Your task to perform on an android device: turn off location Image 0: 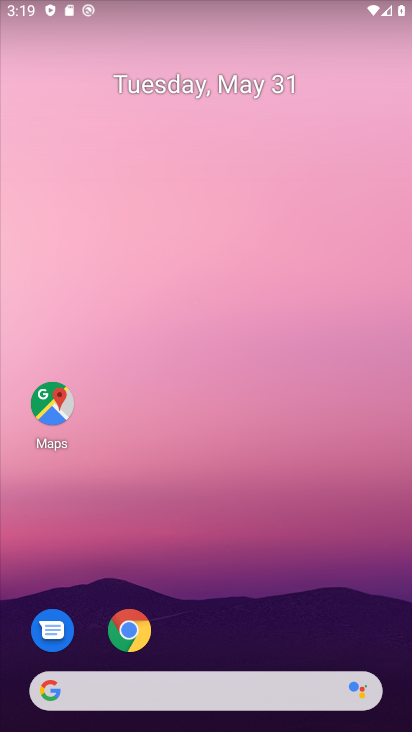
Step 0: drag from (201, 702) to (230, 70)
Your task to perform on an android device: turn off location Image 1: 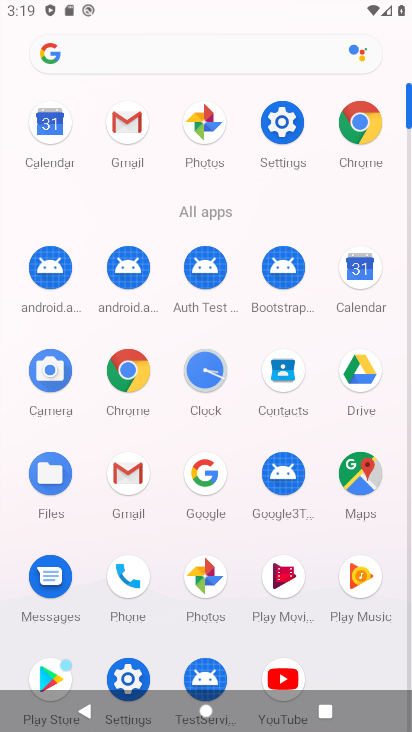
Step 1: click (287, 132)
Your task to perform on an android device: turn off location Image 2: 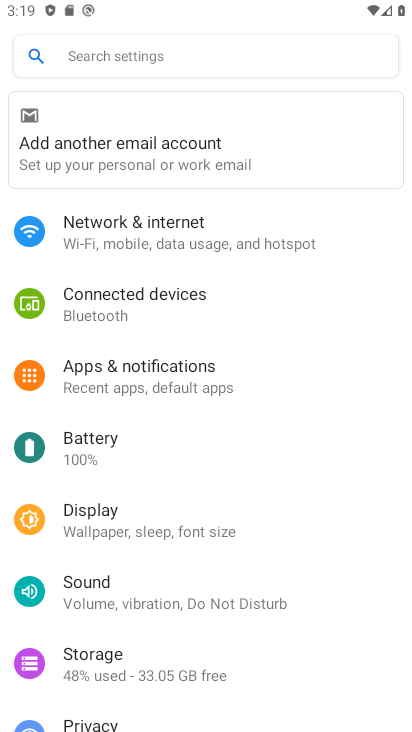
Step 2: drag from (177, 642) to (262, 135)
Your task to perform on an android device: turn off location Image 3: 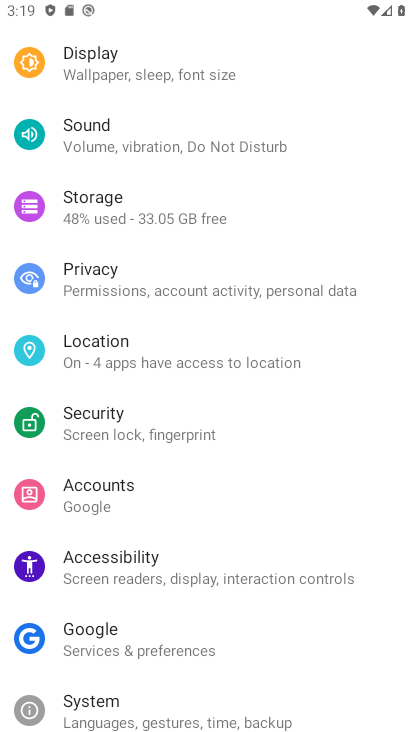
Step 3: click (152, 344)
Your task to perform on an android device: turn off location Image 4: 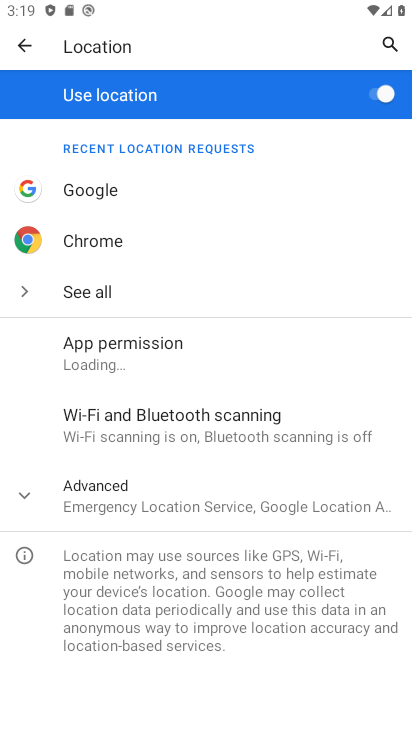
Step 4: click (370, 97)
Your task to perform on an android device: turn off location Image 5: 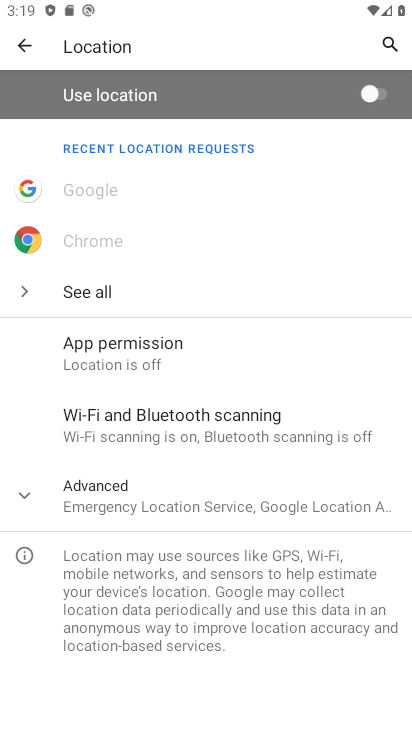
Step 5: task complete